Your task to perform on an android device: What's the weather today? Image 0: 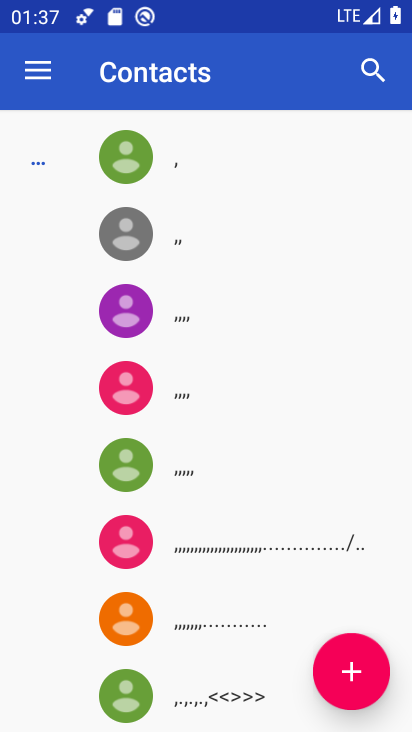
Step 0: press home button
Your task to perform on an android device: What's the weather today? Image 1: 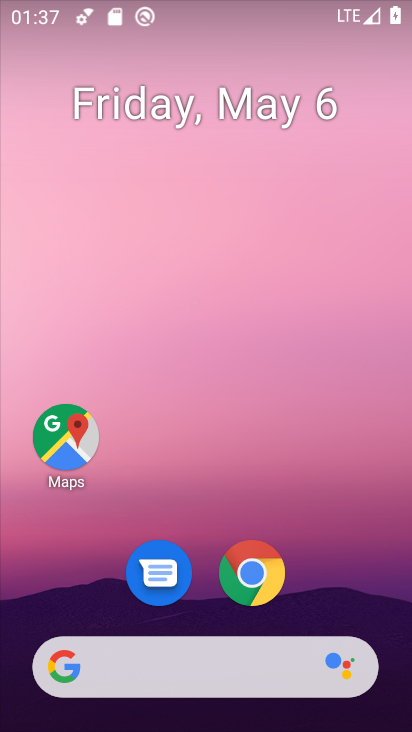
Step 1: drag from (327, 578) to (351, 327)
Your task to perform on an android device: What's the weather today? Image 2: 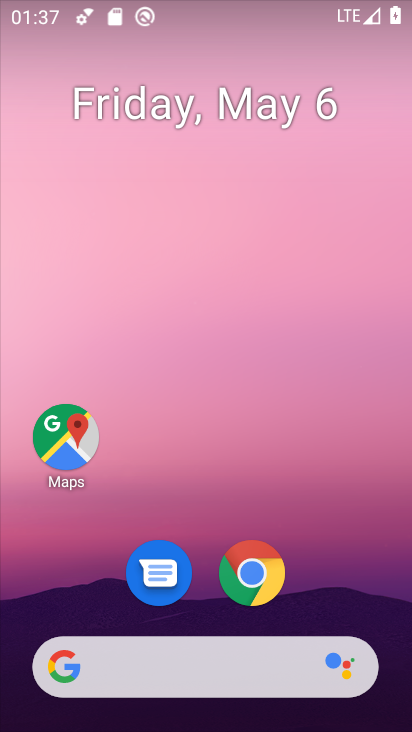
Step 2: drag from (286, 591) to (341, 138)
Your task to perform on an android device: What's the weather today? Image 3: 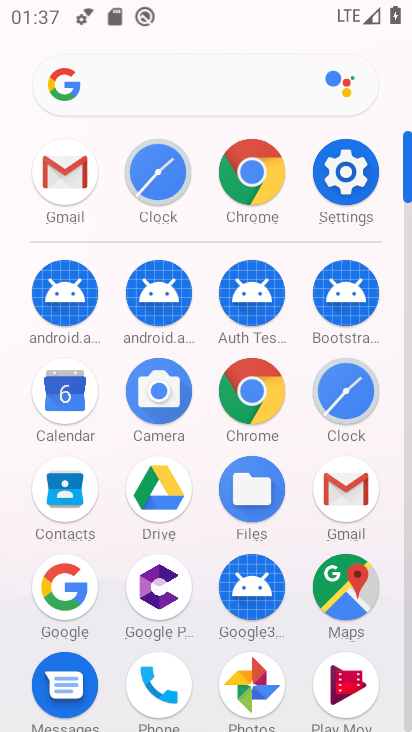
Step 3: click (259, 175)
Your task to perform on an android device: What's the weather today? Image 4: 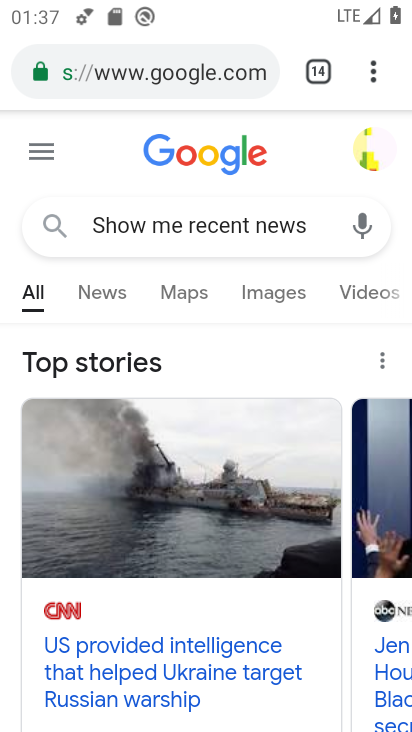
Step 4: click (357, 76)
Your task to perform on an android device: What's the weather today? Image 5: 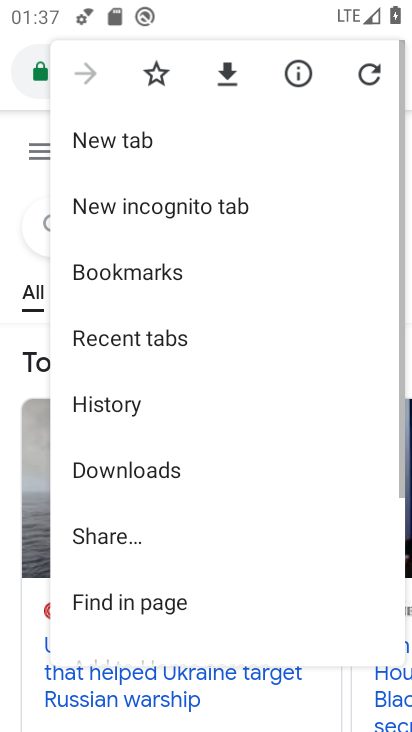
Step 5: click (123, 132)
Your task to perform on an android device: What's the weather today? Image 6: 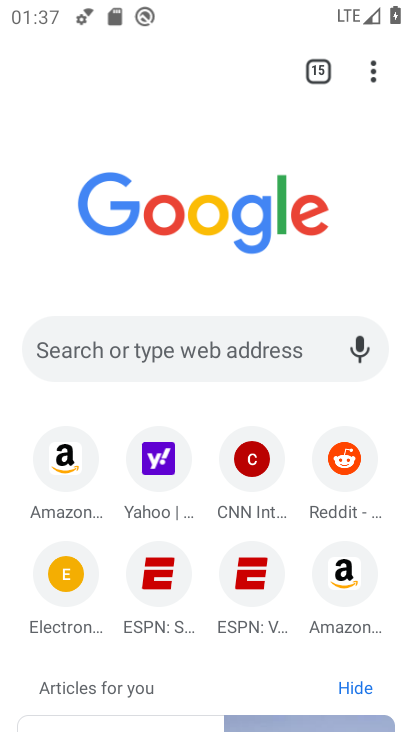
Step 6: click (180, 284)
Your task to perform on an android device: What's the weather today? Image 7: 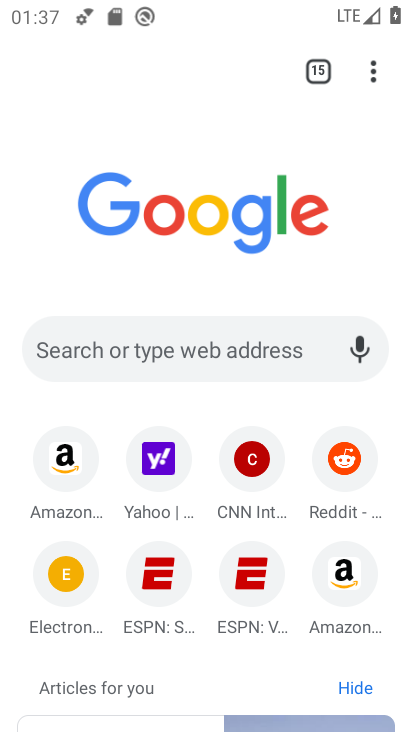
Step 7: click (190, 337)
Your task to perform on an android device: What's the weather today? Image 8: 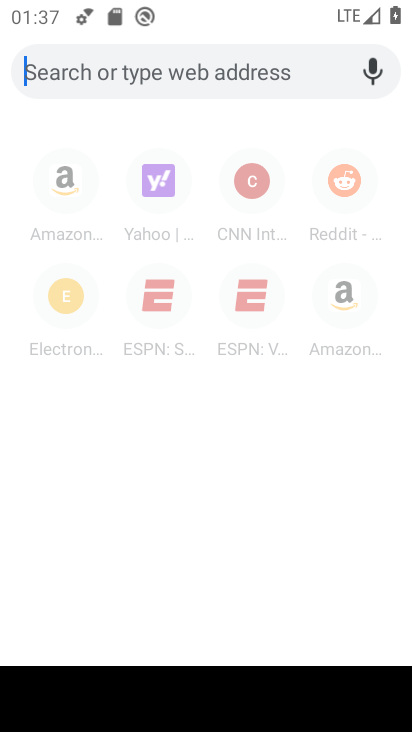
Step 8: type "What's the weather today?"
Your task to perform on an android device: What's the weather today? Image 9: 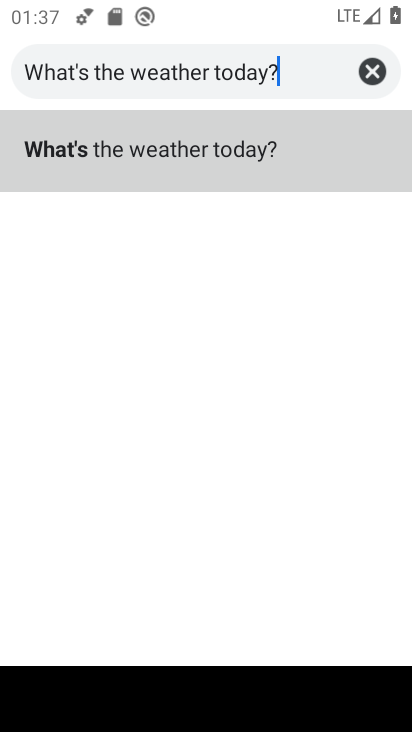
Step 9: click (208, 142)
Your task to perform on an android device: What's the weather today? Image 10: 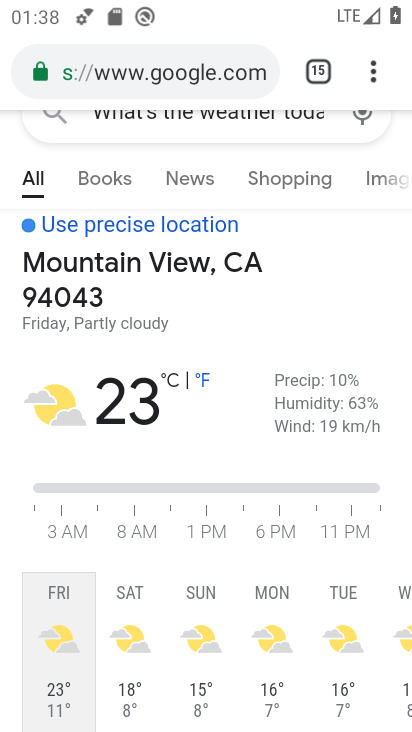
Step 10: task complete